Your task to perform on an android device: Open Maps and search for coffee Image 0: 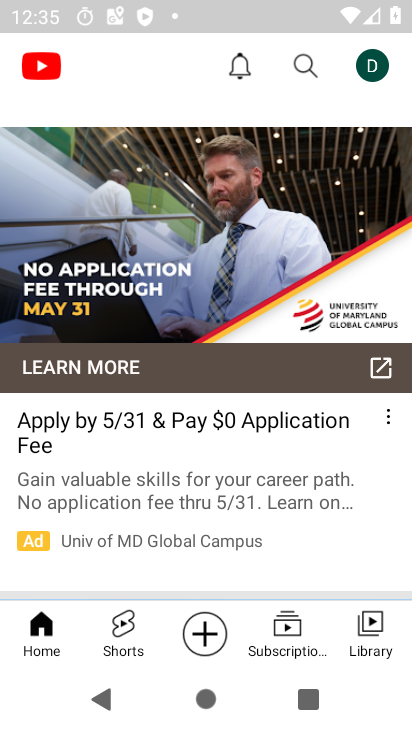
Step 0: press home button
Your task to perform on an android device: Open Maps and search for coffee Image 1: 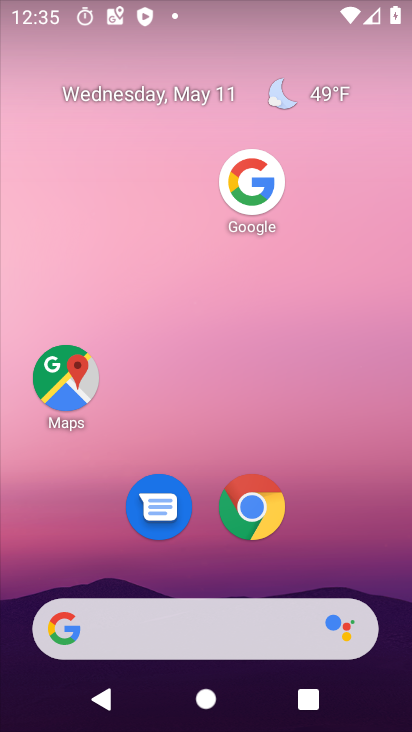
Step 1: drag from (210, 558) to (244, 267)
Your task to perform on an android device: Open Maps and search for coffee Image 2: 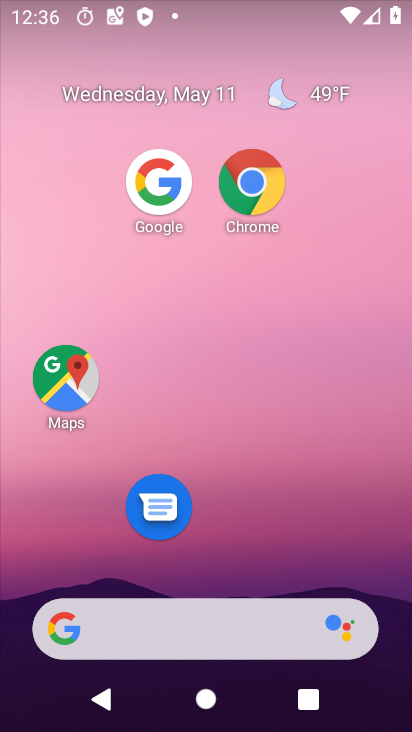
Step 2: click (68, 375)
Your task to perform on an android device: Open Maps and search for coffee Image 3: 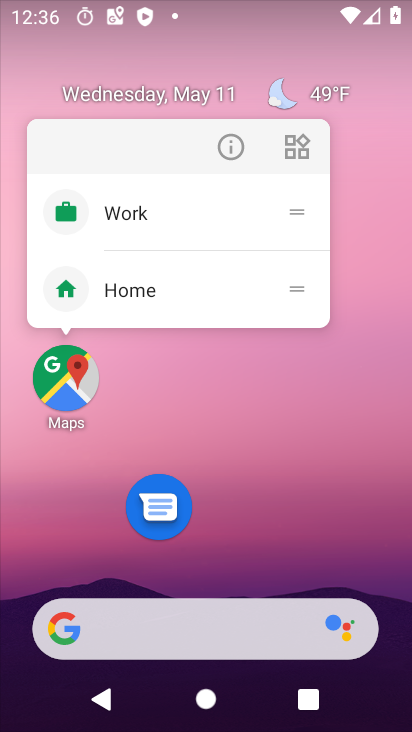
Step 3: click (272, 378)
Your task to perform on an android device: Open Maps and search for coffee Image 4: 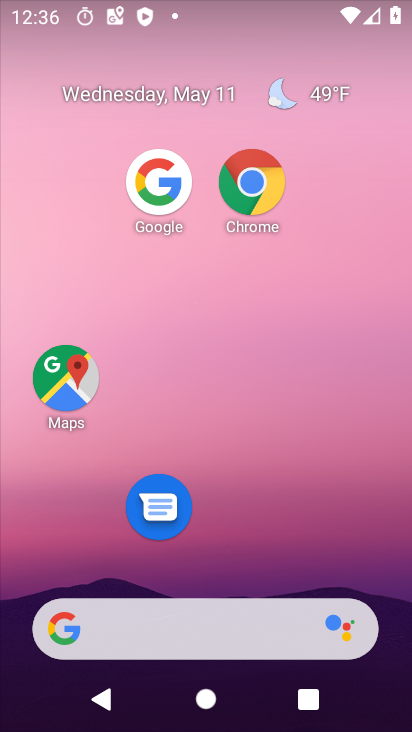
Step 4: click (61, 384)
Your task to perform on an android device: Open Maps and search for coffee Image 5: 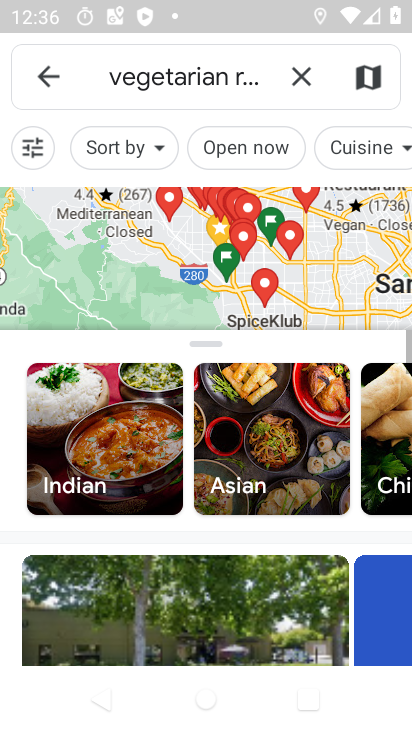
Step 5: click (291, 76)
Your task to perform on an android device: Open Maps and search for coffee Image 6: 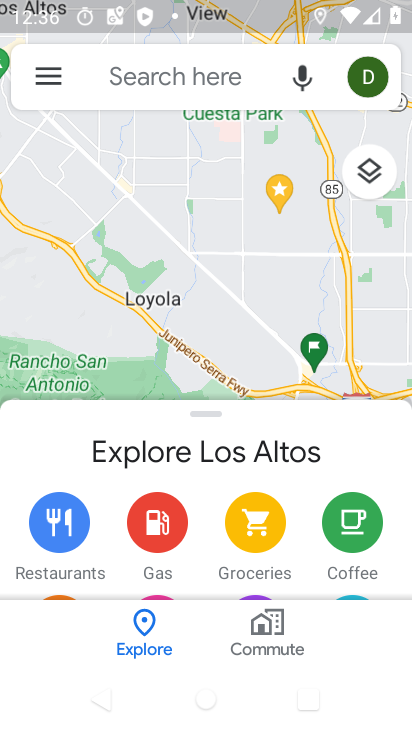
Step 6: click (183, 76)
Your task to perform on an android device: Open Maps and search for coffee Image 7: 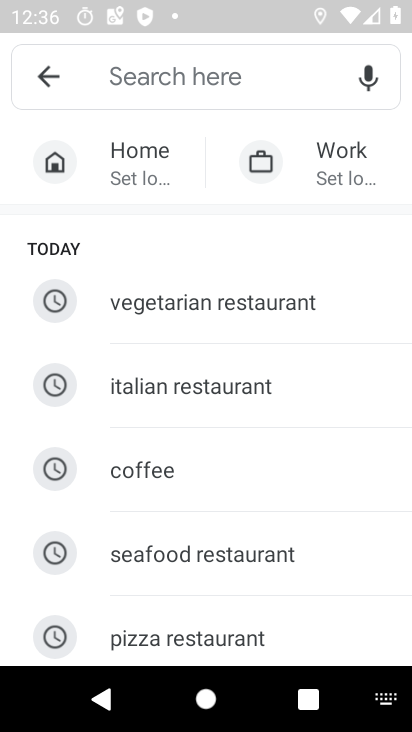
Step 7: click (159, 476)
Your task to perform on an android device: Open Maps and search for coffee Image 8: 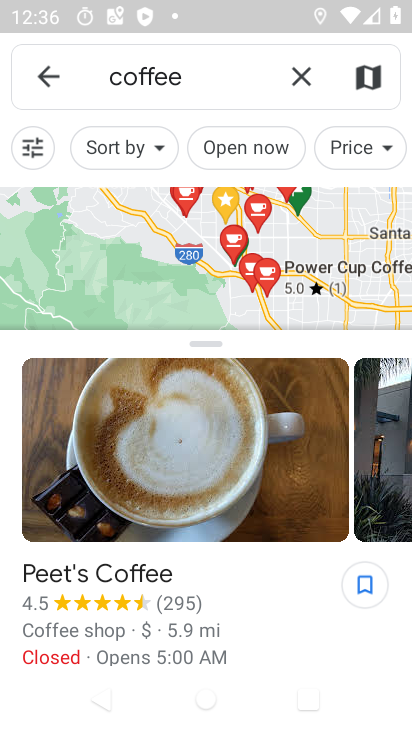
Step 8: task complete